Your task to perform on an android device: Turn off the flashlight Image 0: 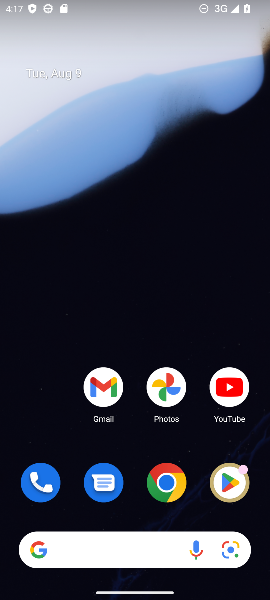
Step 0: drag from (137, 450) to (111, 181)
Your task to perform on an android device: Turn off the flashlight Image 1: 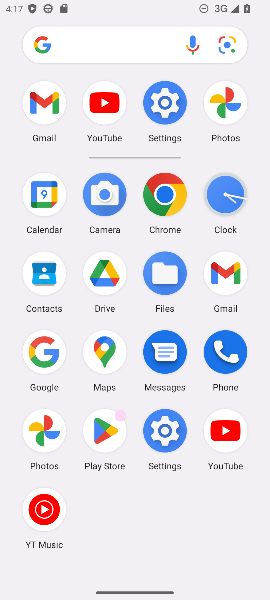
Step 1: click (165, 98)
Your task to perform on an android device: Turn off the flashlight Image 2: 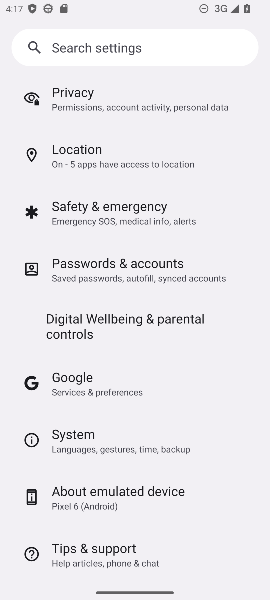
Step 2: task complete